Your task to perform on an android device: Empty the shopping cart on target. Add asus rog to the cart on target, then select checkout. Image 0: 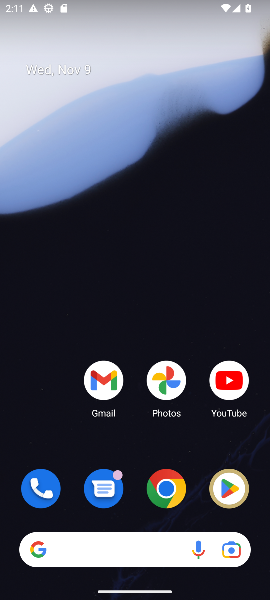
Step 0: drag from (141, 449) to (154, 13)
Your task to perform on an android device: Empty the shopping cart on target. Add asus rog to the cart on target, then select checkout. Image 1: 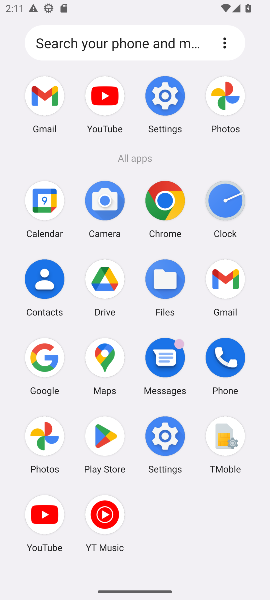
Step 1: click (163, 201)
Your task to perform on an android device: Empty the shopping cart on target. Add asus rog to the cart on target, then select checkout. Image 2: 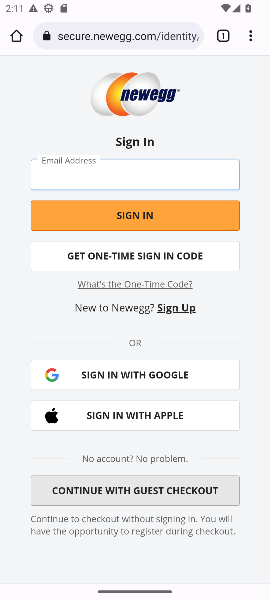
Step 2: click (141, 31)
Your task to perform on an android device: Empty the shopping cart on target. Add asus rog to the cart on target, then select checkout. Image 3: 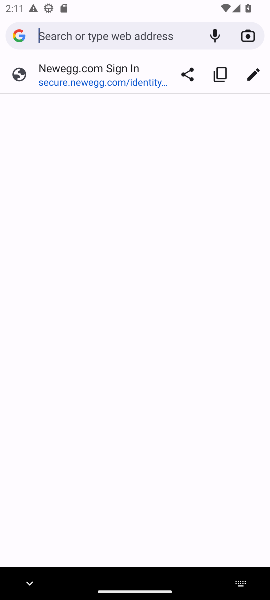
Step 3: type "target.com"
Your task to perform on an android device: Empty the shopping cart on target. Add asus rog to the cart on target, then select checkout. Image 4: 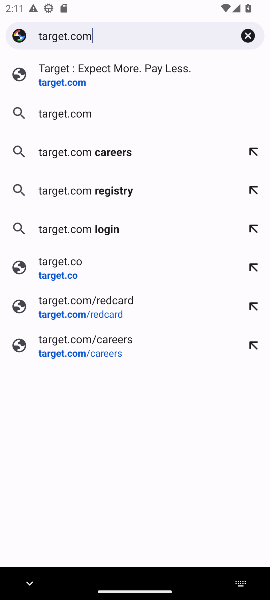
Step 4: press enter
Your task to perform on an android device: Empty the shopping cart on target. Add asus rog to the cart on target, then select checkout. Image 5: 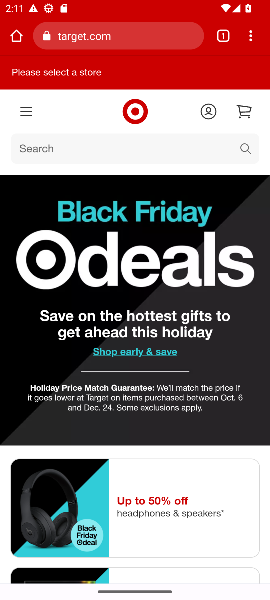
Step 5: click (249, 110)
Your task to perform on an android device: Empty the shopping cart on target. Add asus rog to the cart on target, then select checkout. Image 6: 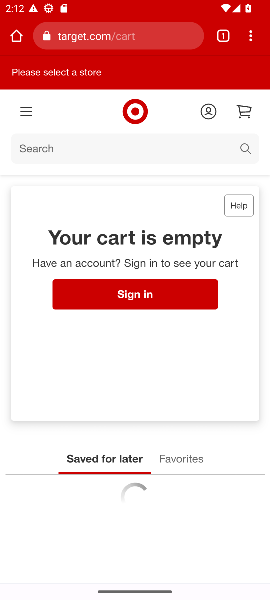
Step 6: click (189, 147)
Your task to perform on an android device: Empty the shopping cart on target. Add asus rog to the cart on target, then select checkout. Image 7: 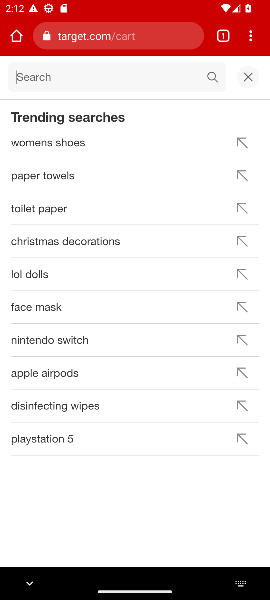
Step 7: type "asus rog"
Your task to perform on an android device: Empty the shopping cart on target. Add asus rog to the cart on target, then select checkout. Image 8: 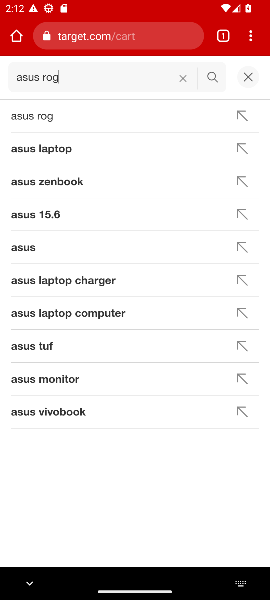
Step 8: press enter
Your task to perform on an android device: Empty the shopping cart on target. Add asus rog to the cart on target, then select checkout. Image 9: 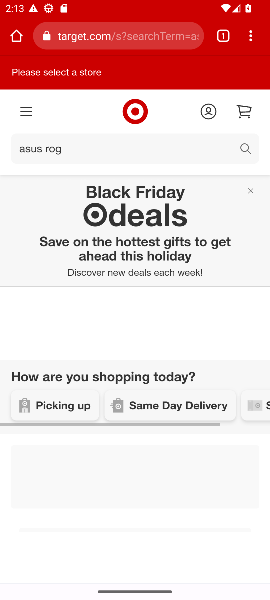
Step 9: drag from (162, 490) to (140, 90)
Your task to perform on an android device: Empty the shopping cart on target. Add asus rog to the cart on target, then select checkout. Image 10: 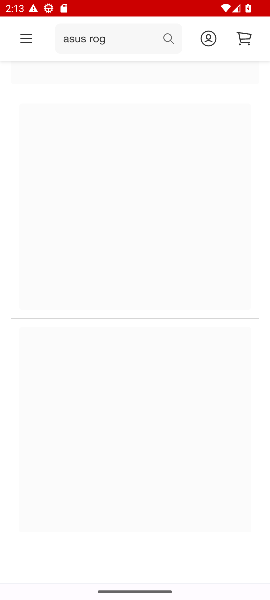
Step 10: drag from (52, 412) to (84, 249)
Your task to perform on an android device: Empty the shopping cart on target. Add asus rog to the cart on target, then select checkout. Image 11: 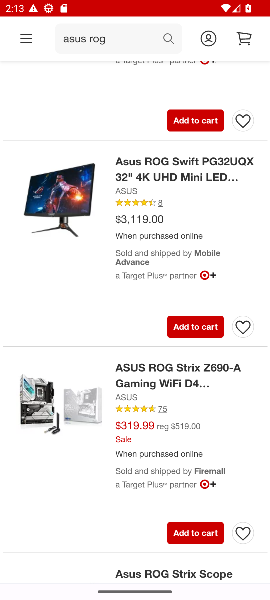
Step 11: drag from (149, 186) to (152, 532)
Your task to perform on an android device: Empty the shopping cart on target. Add asus rog to the cart on target, then select checkout. Image 12: 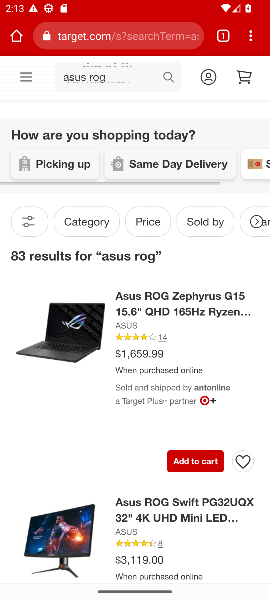
Step 12: click (211, 459)
Your task to perform on an android device: Empty the shopping cart on target. Add asus rog to the cart on target, then select checkout. Image 13: 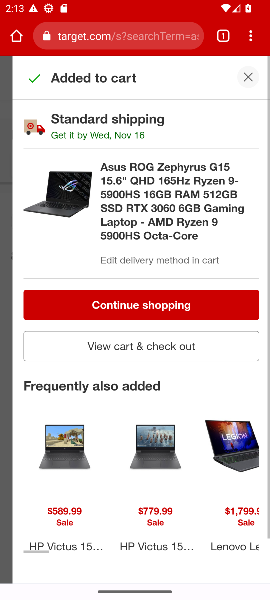
Step 13: click (157, 345)
Your task to perform on an android device: Empty the shopping cart on target. Add asus rog to the cart on target, then select checkout. Image 14: 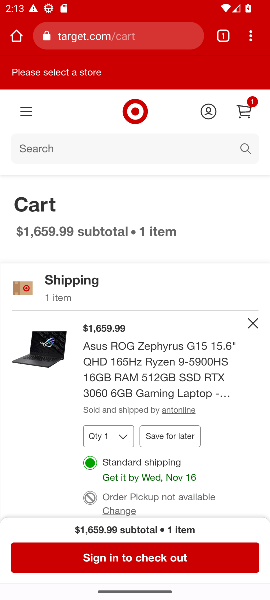
Step 14: drag from (199, 442) to (220, 183)
Your task to perform on an android device: Empty the shopping cart on target. Add asus rog to the cart on target, then select checkout. Image 15: 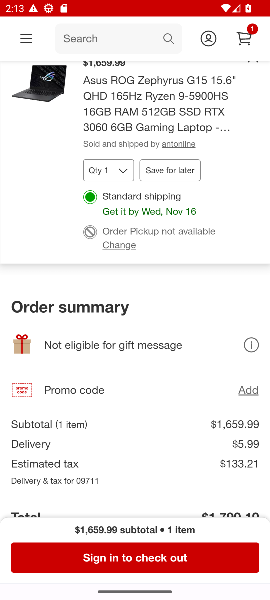
Step 15: click (148, 557)
Your task to perform on an android device: Empty the shopping cart on target. Add asus rog to the cart on target, then select checkout. Image 16: 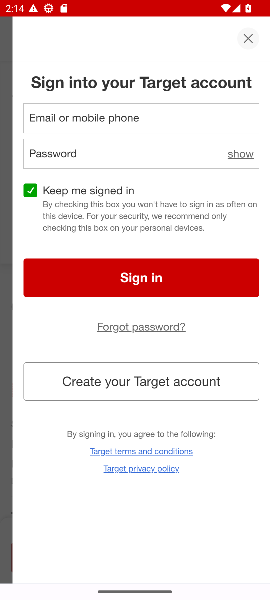
Step 16: task complete